Your task to perform on an android device: open chrome privacy settings Image 0: 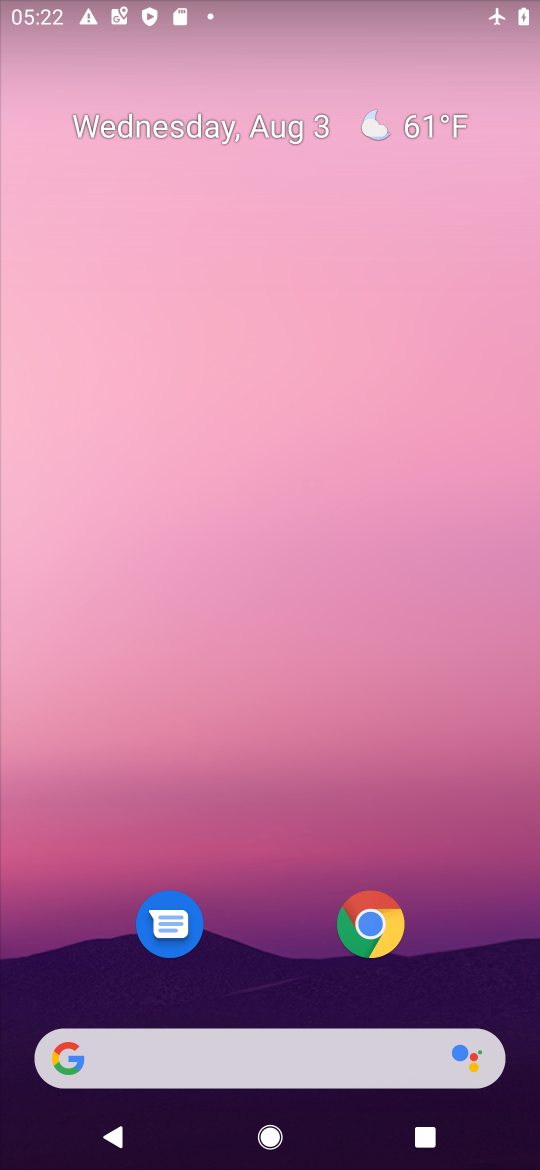
Step 0: click (362, 928)
Your task to perform on an android device: open chrome privacy settings Image 1: 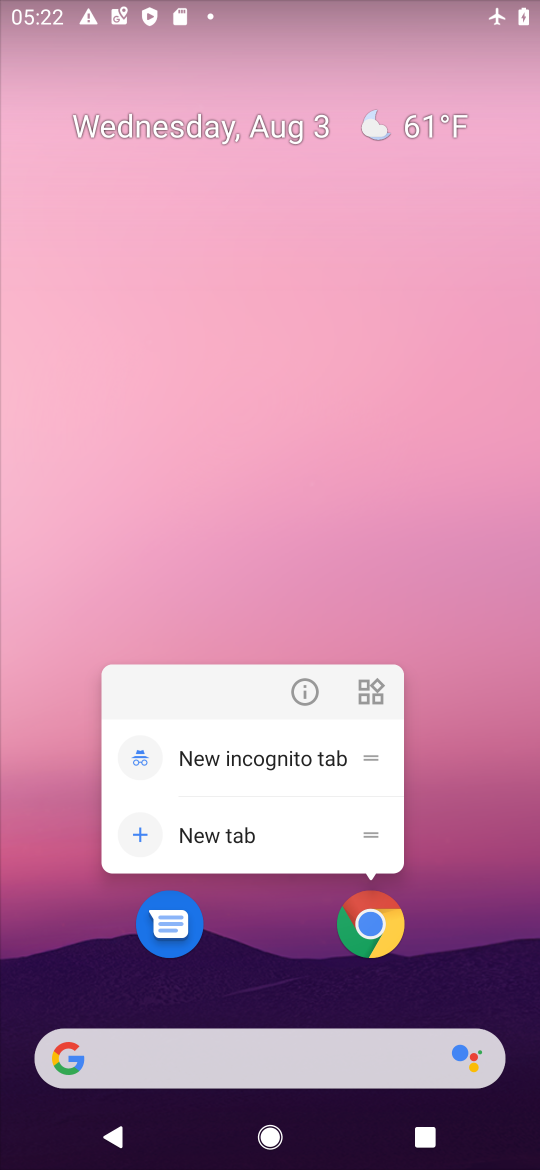
Step 1: click (378, 948)
Your task to perform on an android device: open chrome privacy settings Image 2: 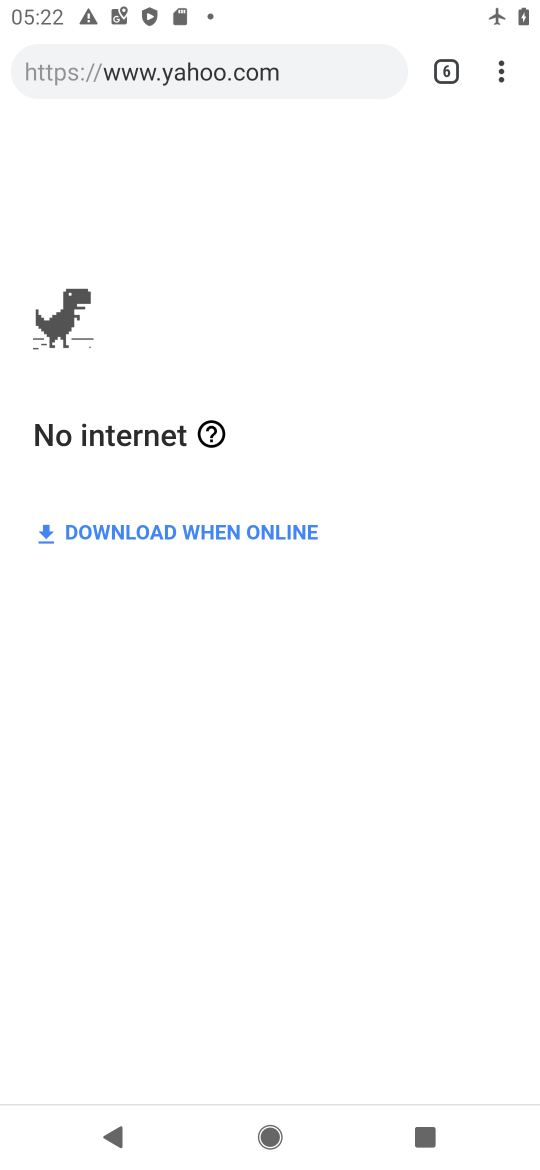
Step 2: click (496, 81)
Your task to perform on an android device: open chrome privacy settings Image 3: 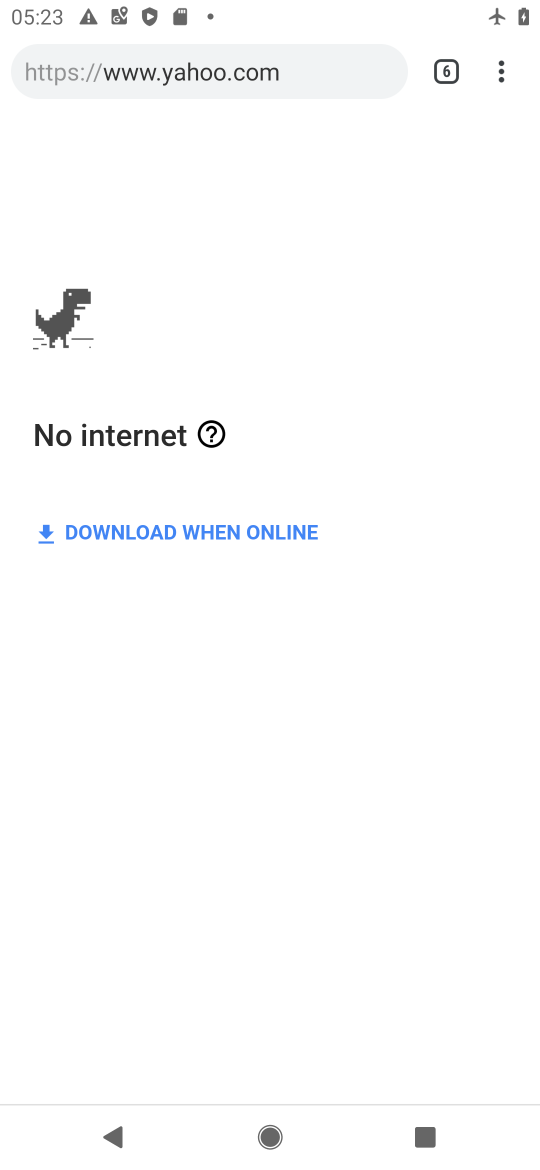
Step 3: click (500, 73)
Your task to perform on an android device: open chrome privacy settings Image 4: 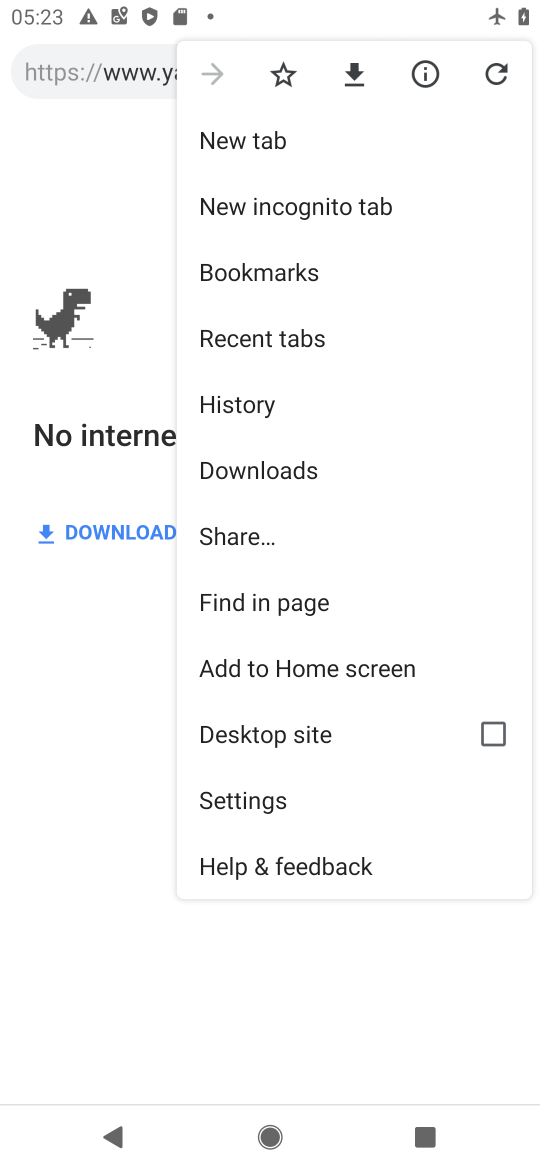
Step 4: click (243, 810)
Your task to perform on an android device: open chrome privacy settings Image 5: 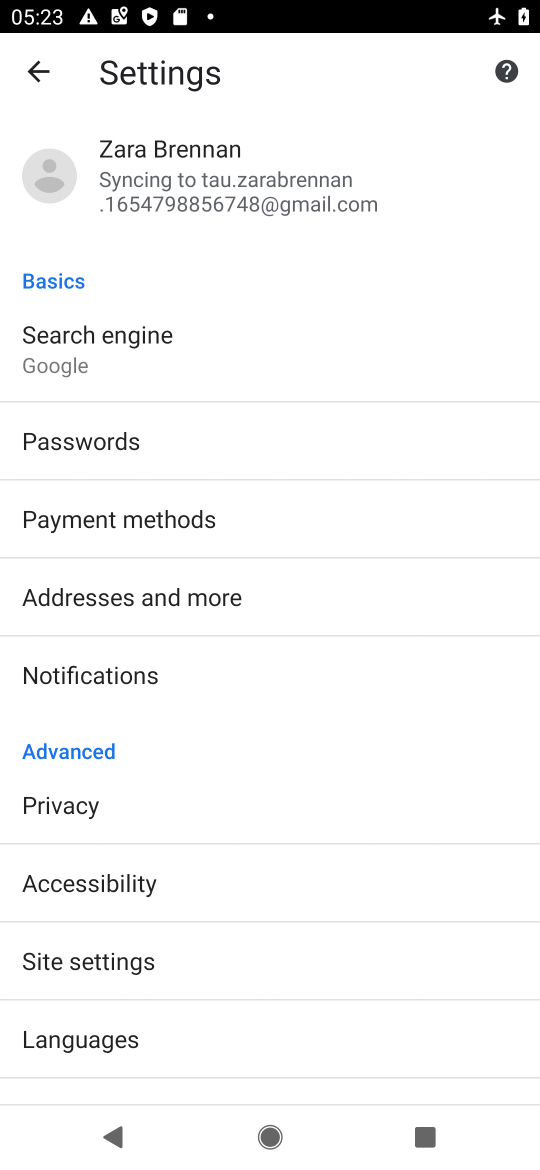
Step 5: click (136, 810)
Your task to perform on an android device: open chrome privacy settings Image 6: 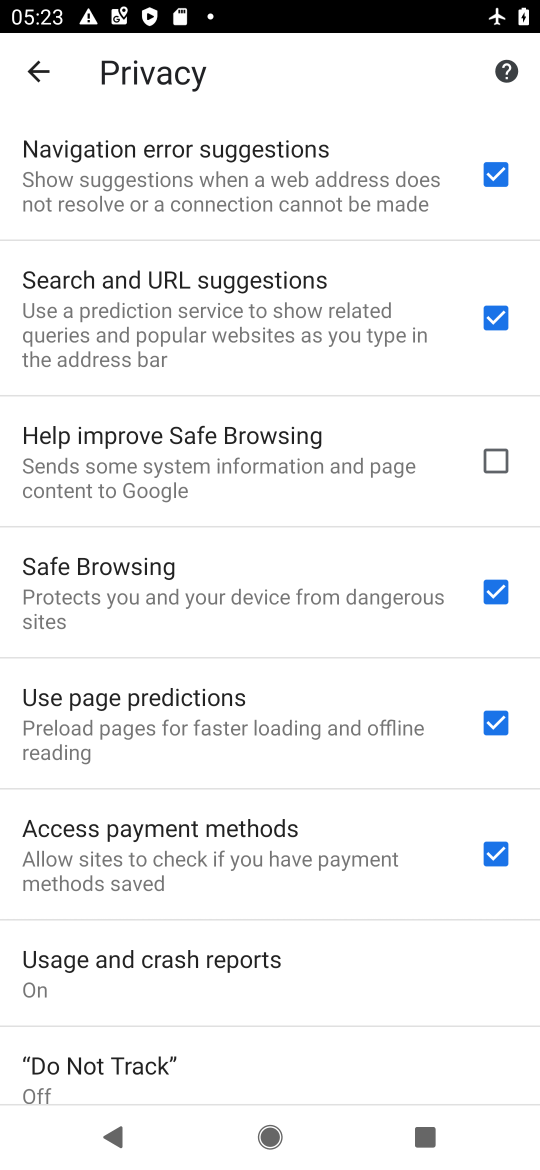
Step 6: task complete